Your task to perform on an android device: Open the calendar and show me this week's events? Image 0: 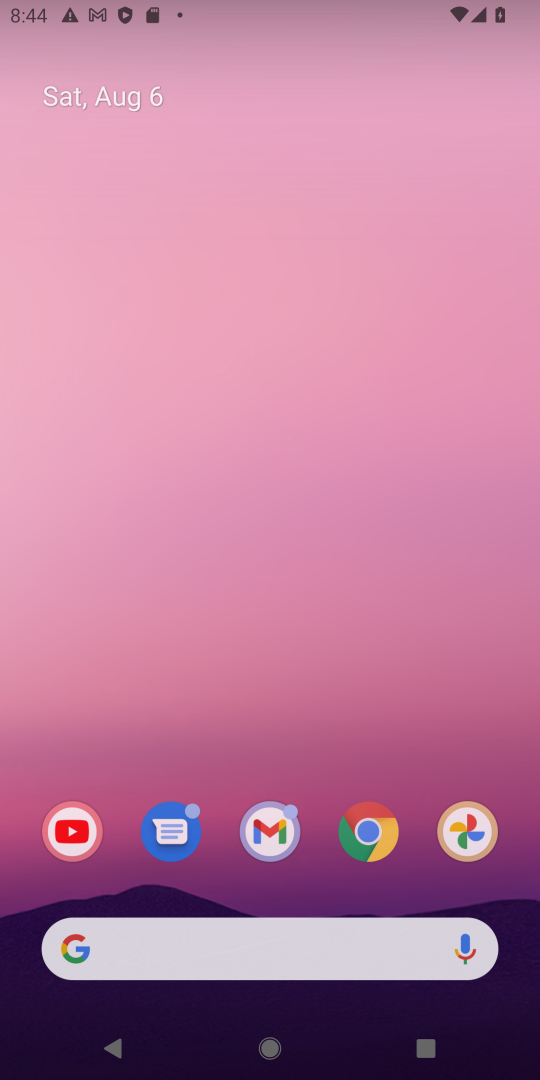
Step 0: press home button
Your task to perform on an android device: Open the calendar and show me this week's events? Image 1: 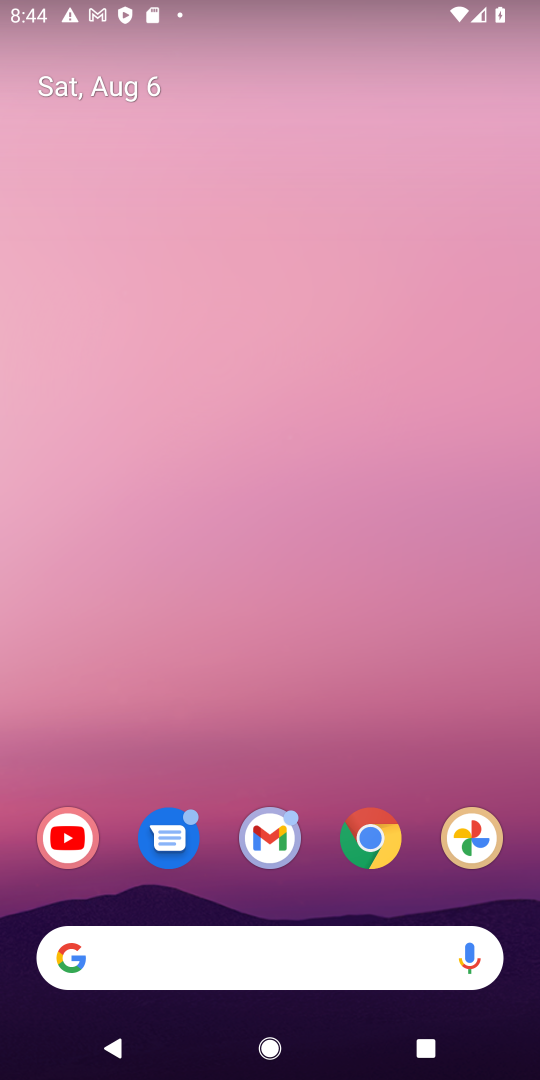
Step 1: drag from (319, 796) to (227, 74)
Your task to perform on an android device: Open the calendar and show me this week's events? Image 2: 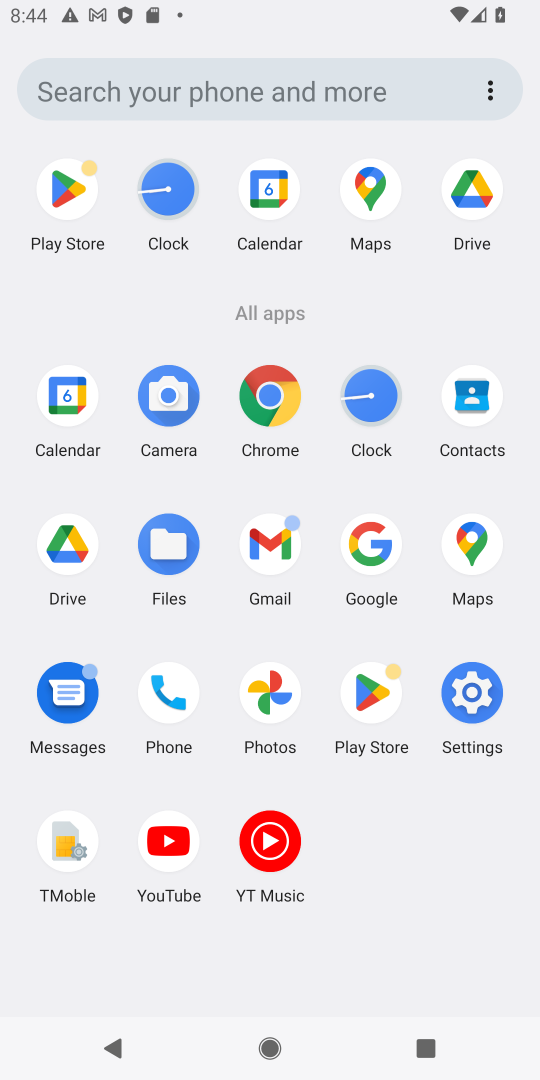
Step 2: click (82, 397)
Your task to perform on an android device: Open the calendar and show me this week's events? Image 3: 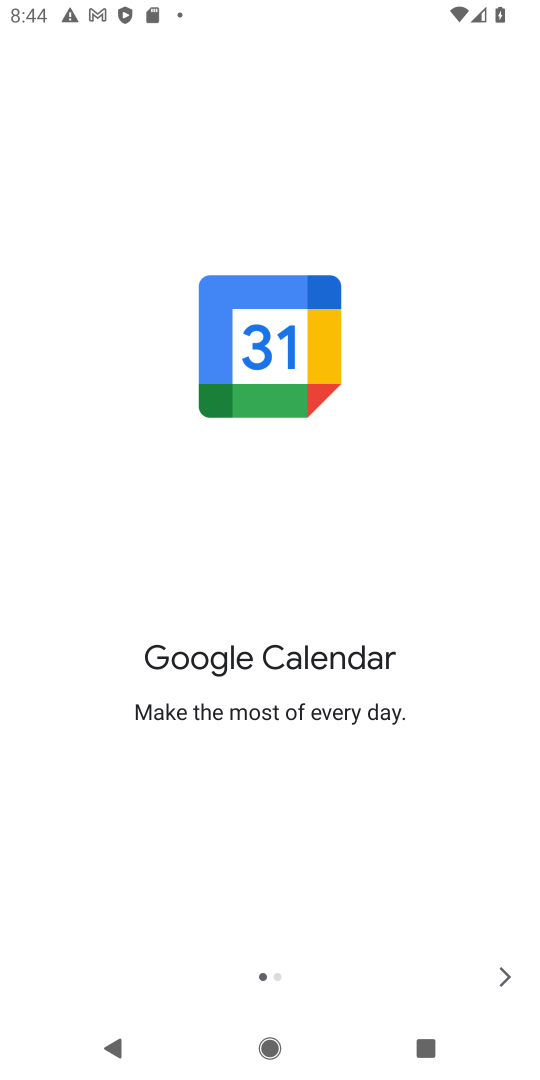
Step 3: click (502, 969)
Your task to perform on an android device: Open the calendar and show me this week's events? Image 4: 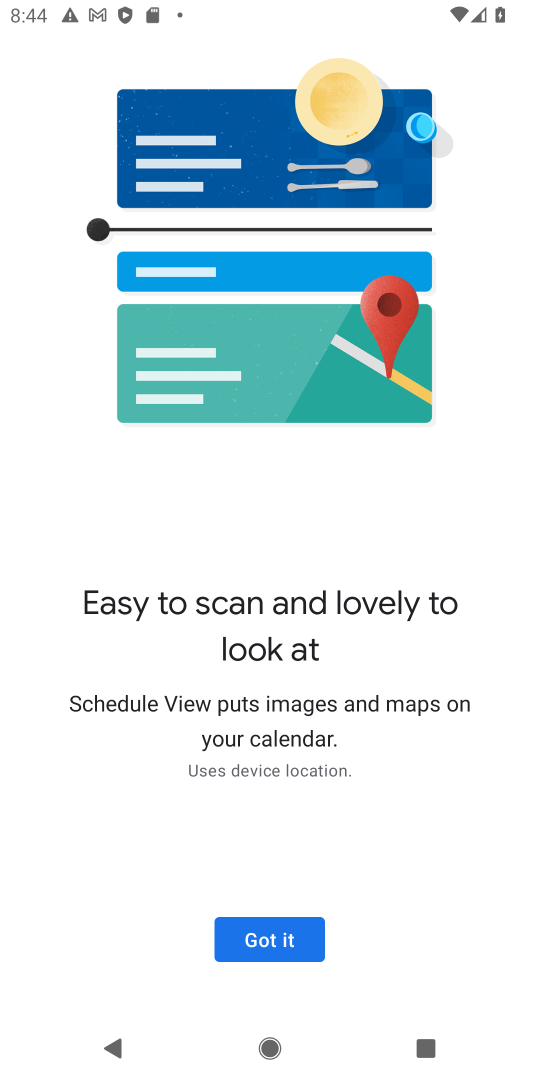
Step 4: click (271, 944)
Your task to perform on an android device: Open the calendar and show me this week's events? Image 5: 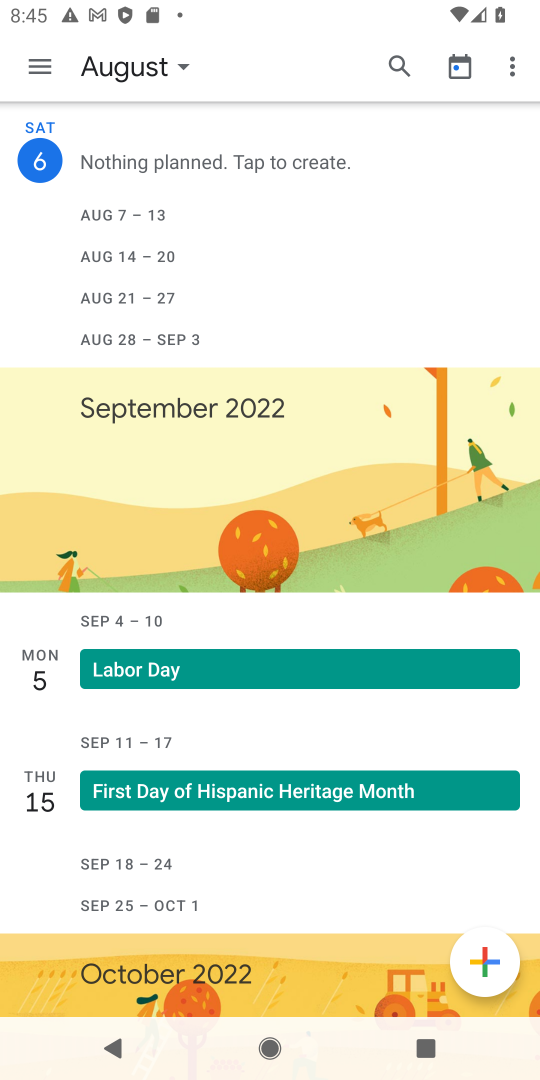
Step 5: click (37, 62)
Your task to perform on an android device: Open the calendar and show me this week's events? Image 6: 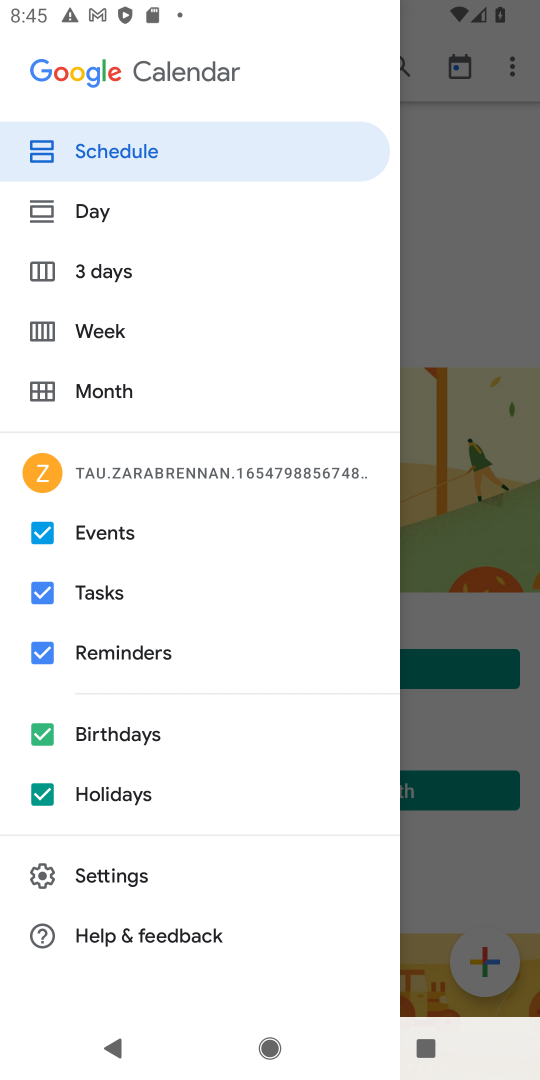
Step 6: click (192, 322)
Your task to perform on an android device: Open the calendar and show me this week's events? Image 7: 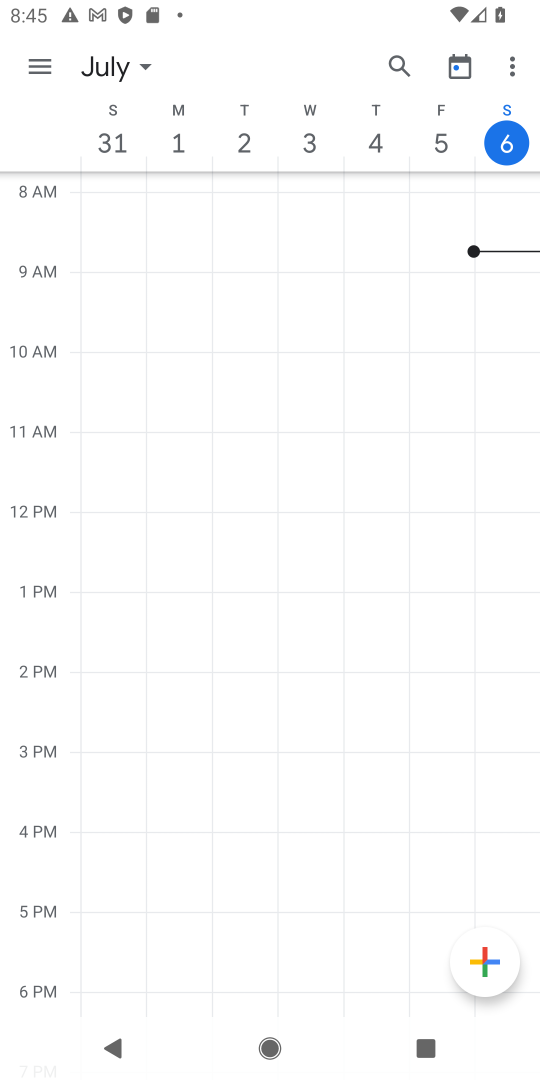
Step 7: task complete